Your task to perform on an android device: turn on improve location accuracy Image 0: 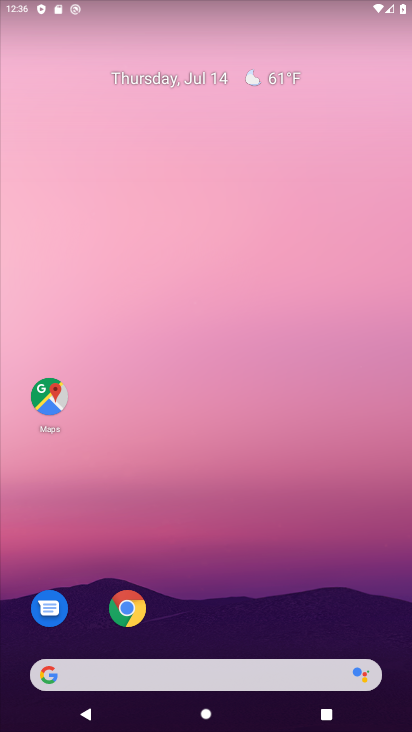
Step 0: drag from (358, 618) to (370, 218)
Your task to perform on an android device: turn on improve location accuracy Image 1: 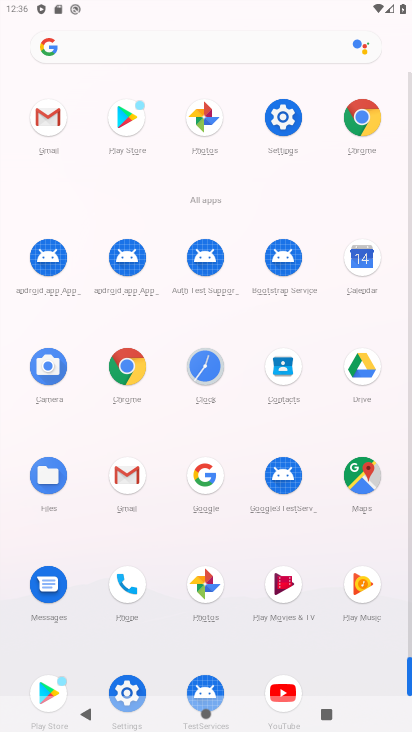
Step 1: click (289, 125)
Your task to perform on an android device: turn on improve location accuracy Image 2: 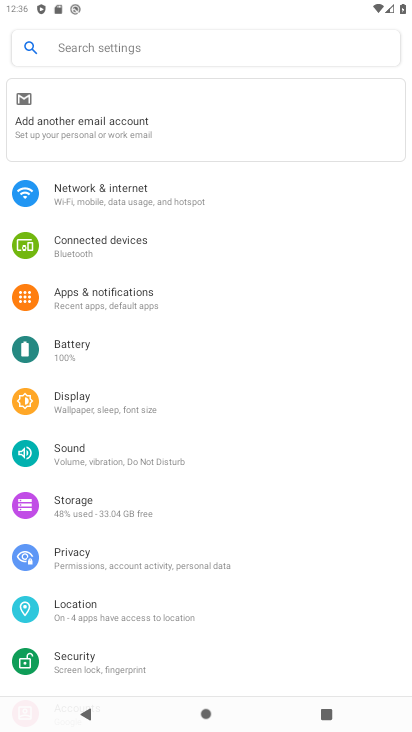
Step 2: drag from (320, 345) to (322, 270)
Your task to perform on an android device: turn on improve location accuracy Image 3: 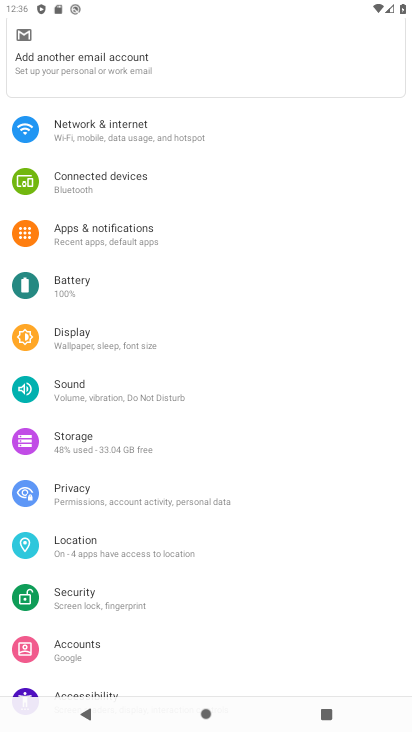
Step 3: drag from (333, 450) to (325, 363)
Your task to perform on an android device: turn on improve location accuracy Image 4: 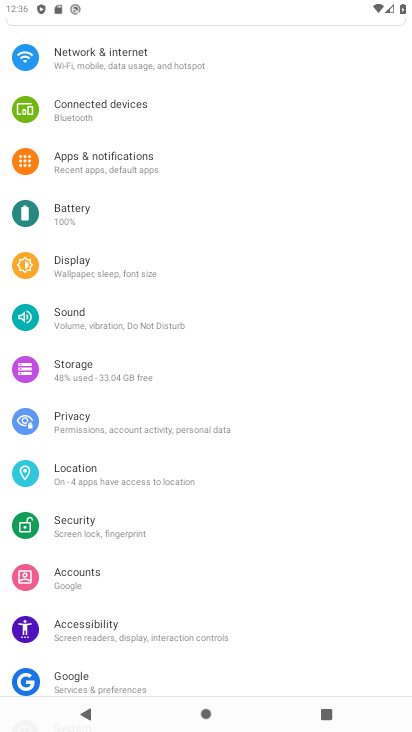
Step 4: drag from (332, 452) to (324, 367)
Your task to perform on an android device: turn on improve location accuracy Image 5: 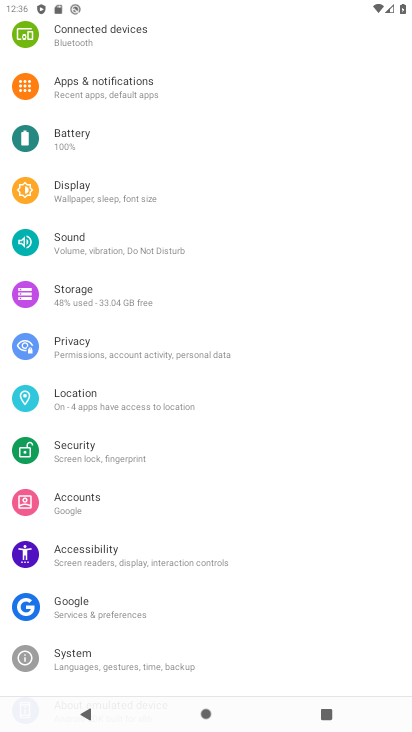
Step 5: drag from (334, 490) to (327, 424)
Your task to perform on an android device: turn on improve location accuracy Image 6: 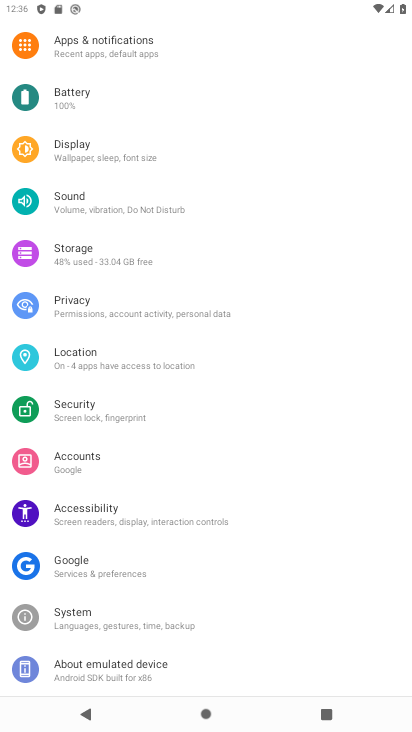
Step 6: drag from (327, 335) to (326, 402)
Your task to perform on an android device: turn on improve location accuracy Image 7: 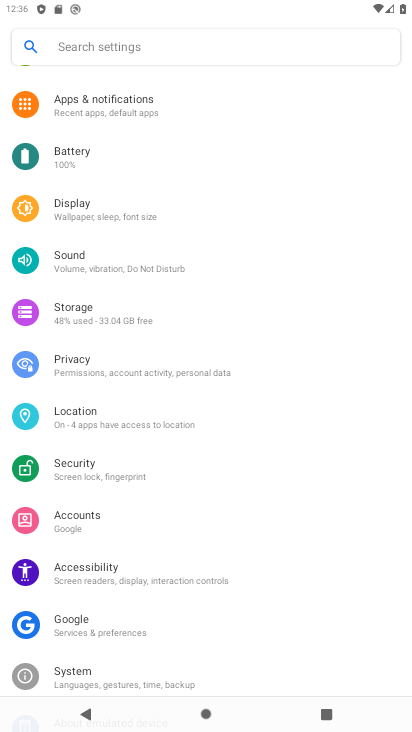
Step 7: click (226, 430)
Your task to perform on an android device: turn on improve location accuracy Image 8: 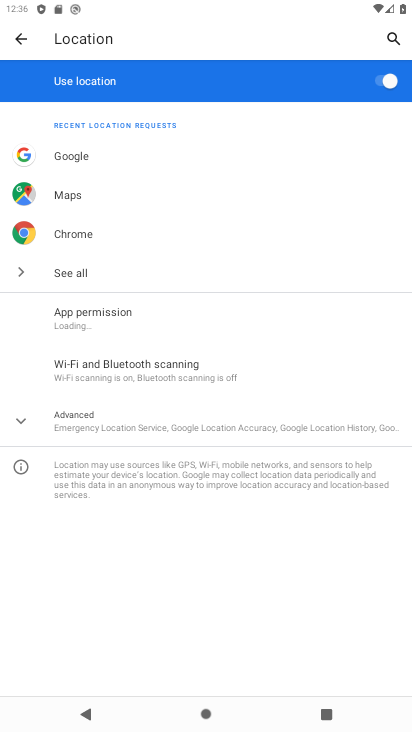
Step 8: click (231, 423)
Your task to perform on an android device: turn on improve location accuracy Image 9: 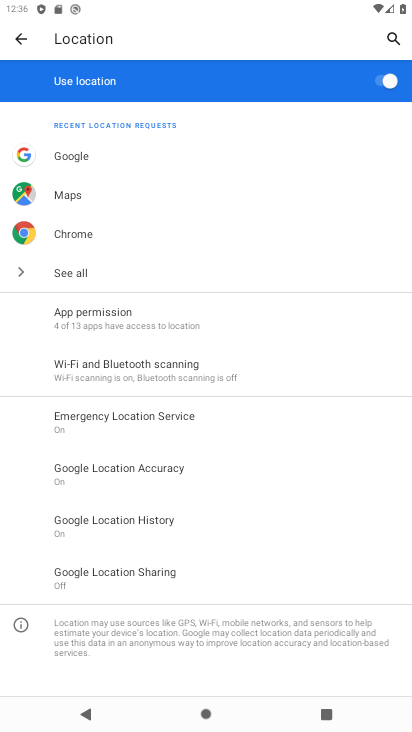
Step 9: click (160, 476)
Your task to perform on an android device: turn on improve location accuracy Image 10: 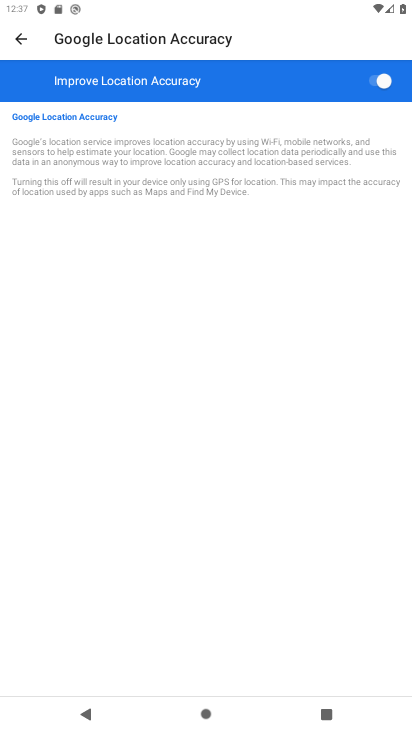
Step 10: task complete